Your task to perform on an android device: Open the stopwatch Image 0: 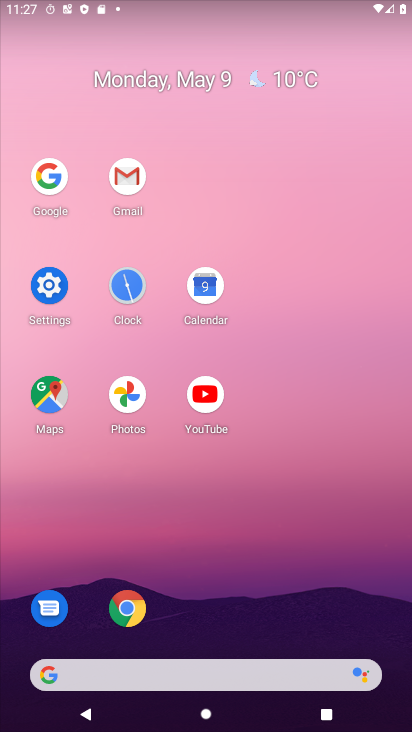
Step 0: click (116, 286)
Your task to perform on an android device: Open the stopwatch Image 1: 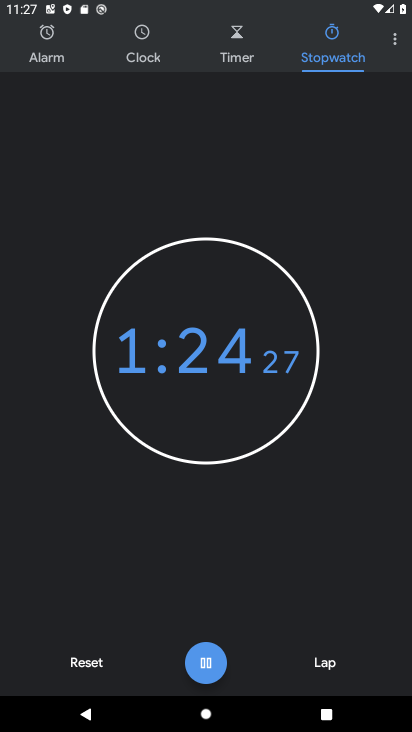
Step 1: task complete